Your task to perform on an android device: add a contact in the contacts app Image 0: 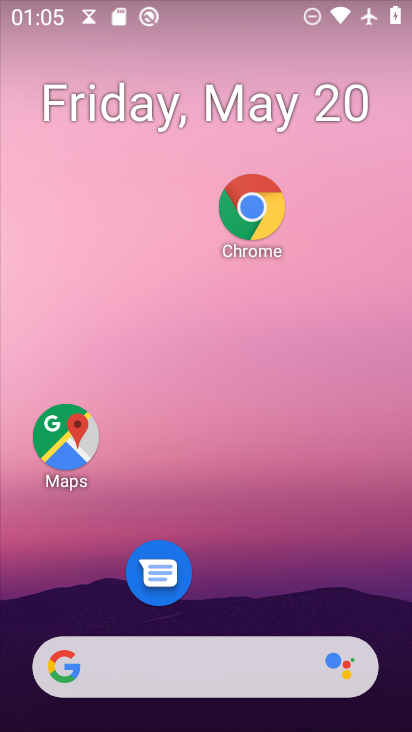
Step 0: click (293, 45)
Your task to perform on an android device: add a contact in the contacts app Image 1: 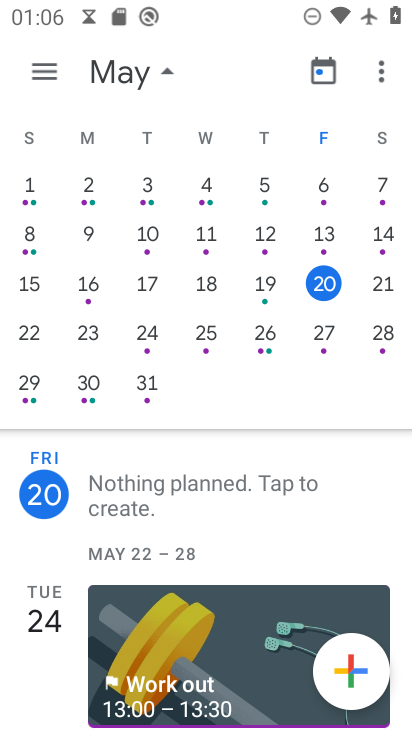
Step 1: press home button
Your task to perform on an android device: add a contact in the contacts app Image 2: 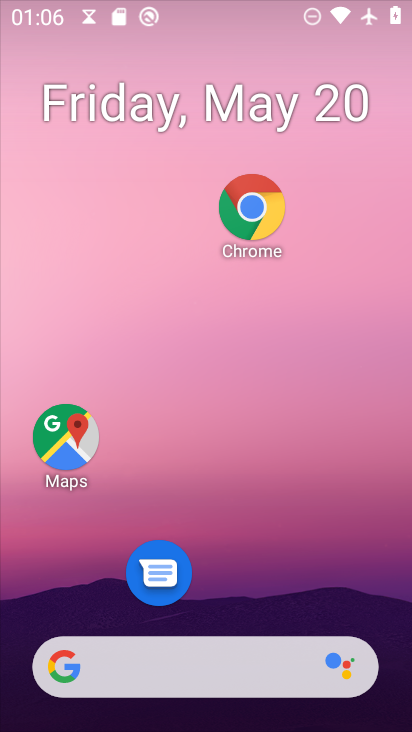
Step 2: drag from (248, 483) to (289, 27)
Your task to perform on an android device: add a contact in the contacts app Image 3: 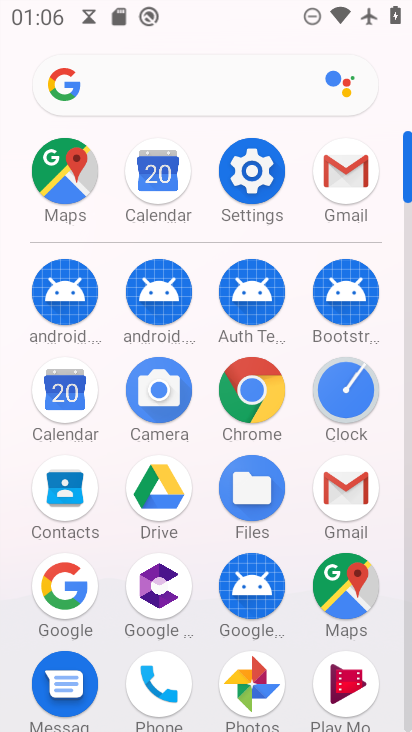
Step 3: click (53, 488)
Your task to perform on an android device: add a contact in the contacts app Image 4: 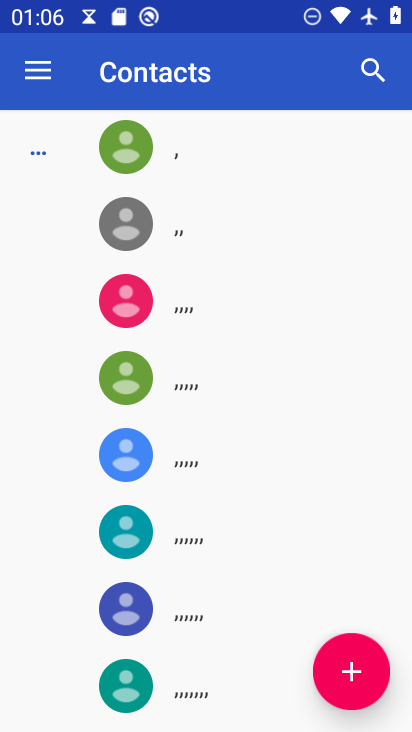
Step 4: click (320, 685)
Your task to perform on an android device: add a contact in the contacts app Image 5: 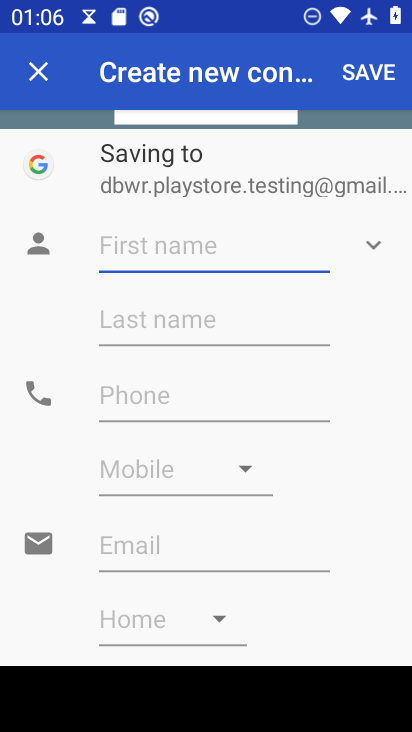
Step 5: type "mklpoijnhuygbvftcdrx"
Your task to perform on an android device: add a contact in the contacts app Image 6: 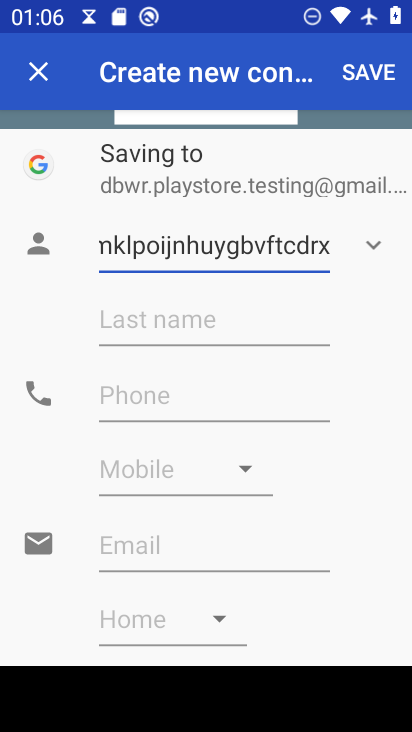
Step 6: click (133, 402)
Your task to perform on an android device: add a contact in the contacts app Image 7: 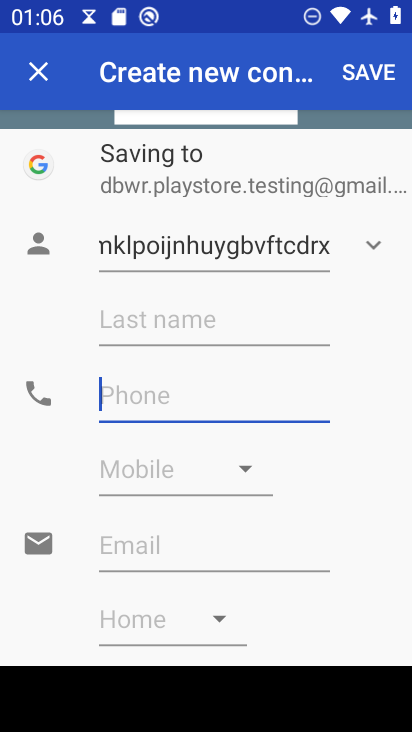
Step 7: type "09876543212"
Your task to perform on an android device: add a contact in the contacts app Image 8: 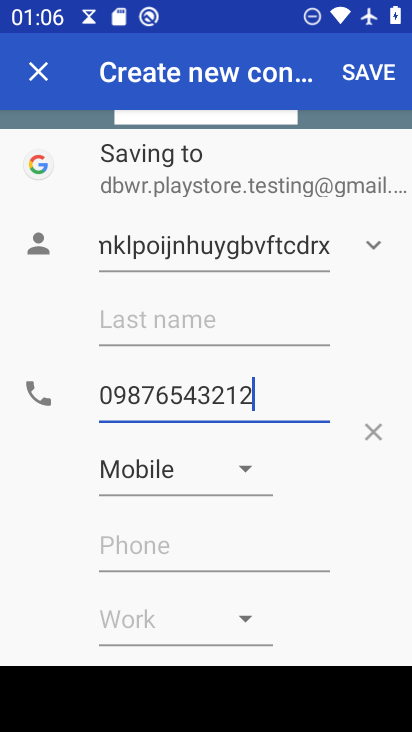
Step 8: click (364, 67)
Your task to perform on an android device: add a contact in the contacts app Image 9: 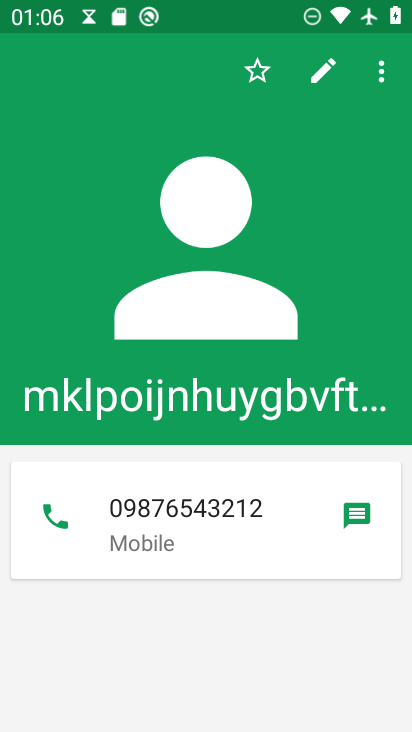
Step 9: task complete